Your task to perform on an android device: turn on the 24-hour format for clock Image 0: 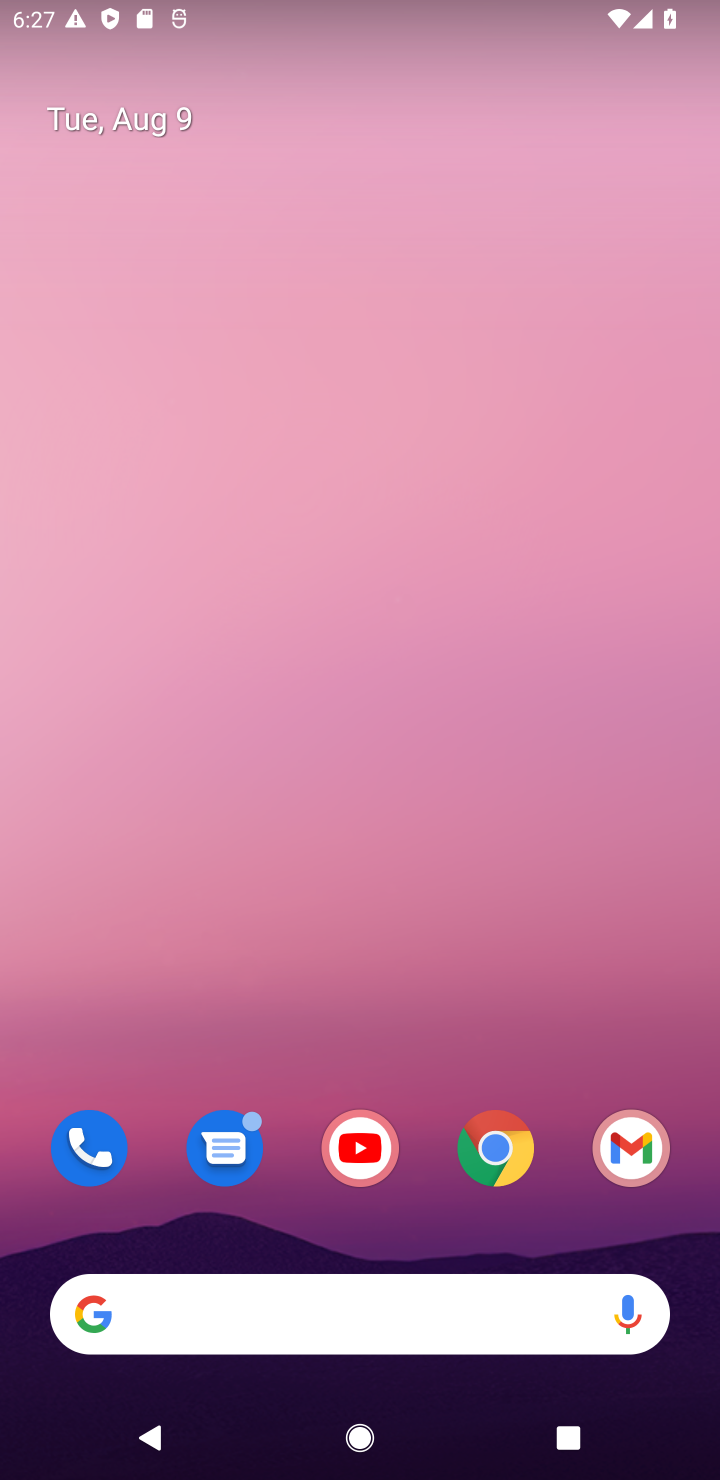
Step 0: press home button
Your task to perform on an android device: turn on the 24-hour format for clock Image 1: 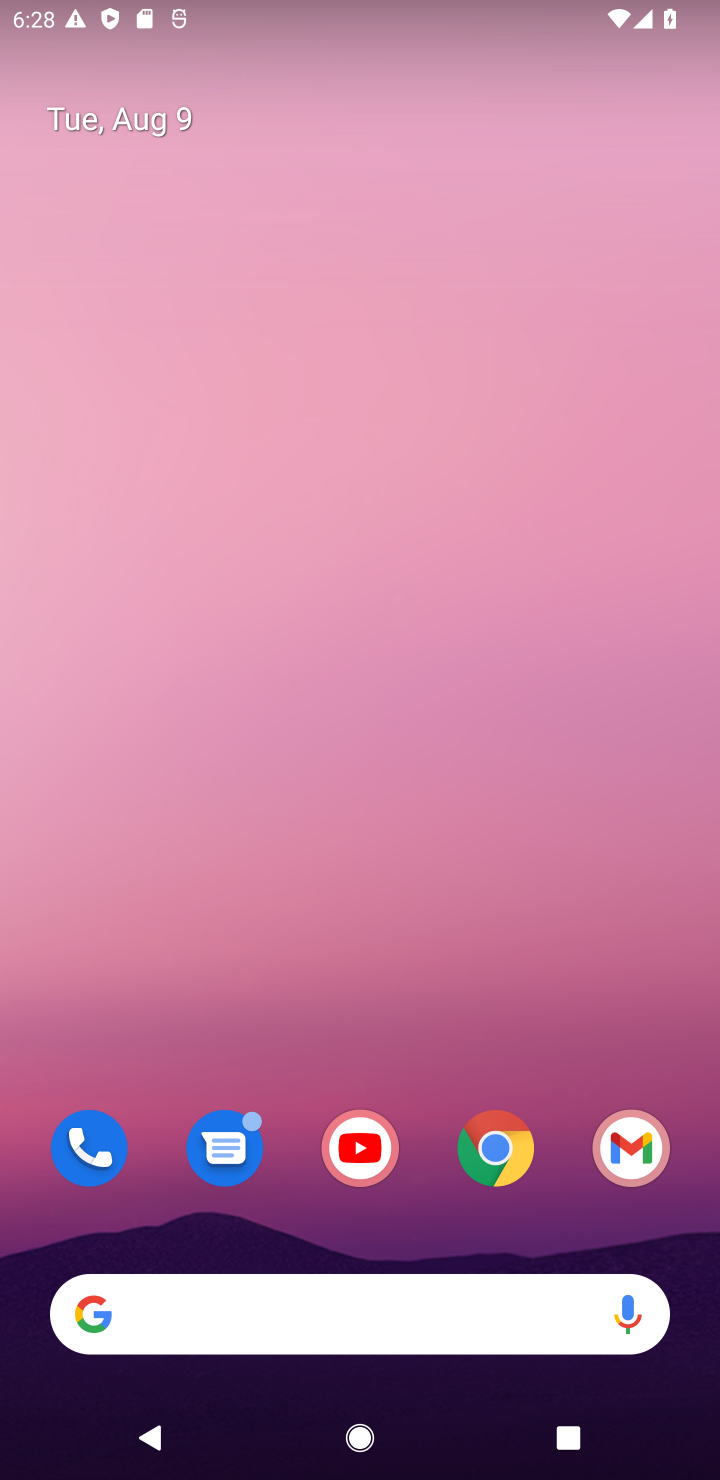
Step 1: drag from (379, 923) to (382, 161)
Your task to perform on an android device: turn on the 24-hour format for clock Image 2: 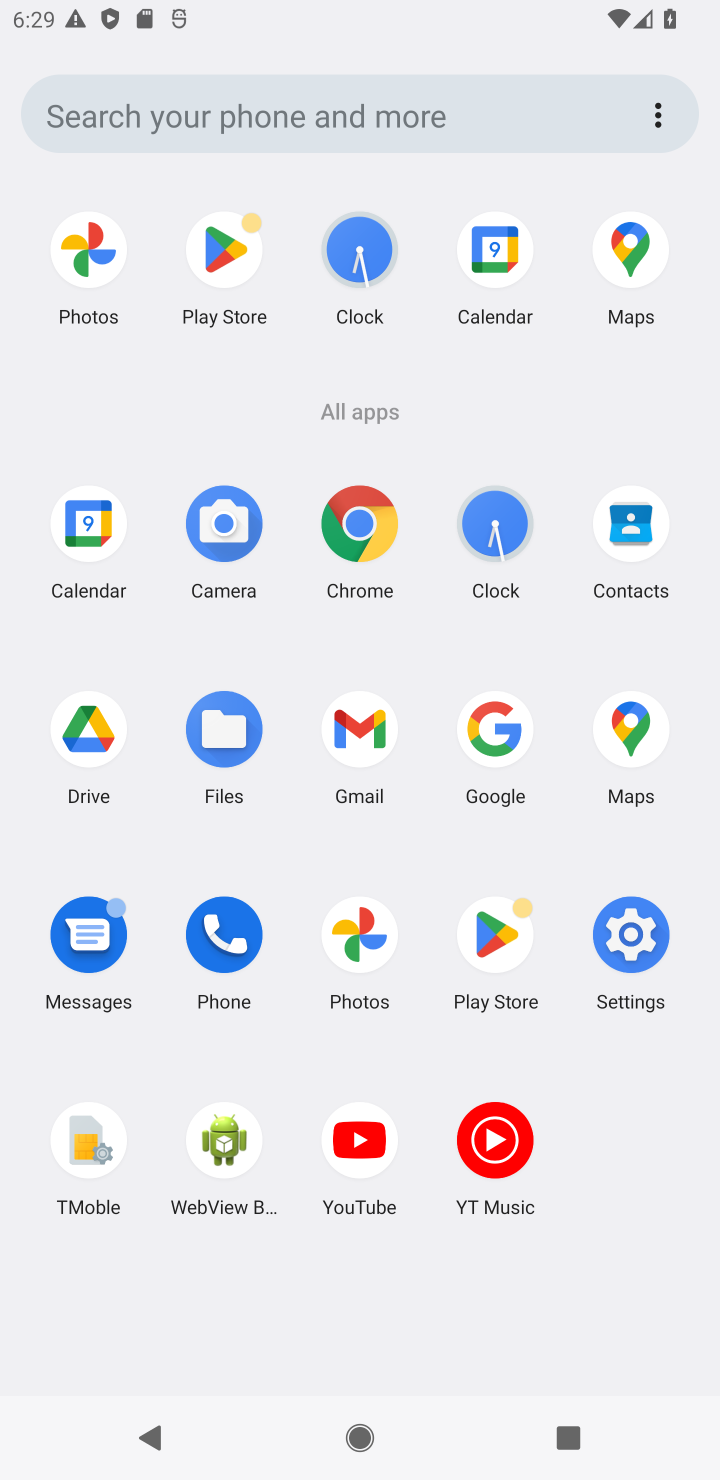
Step 2: click (511, 503)
Your task to perform on an android device: turn on the 24-hour format for clock Image 3: 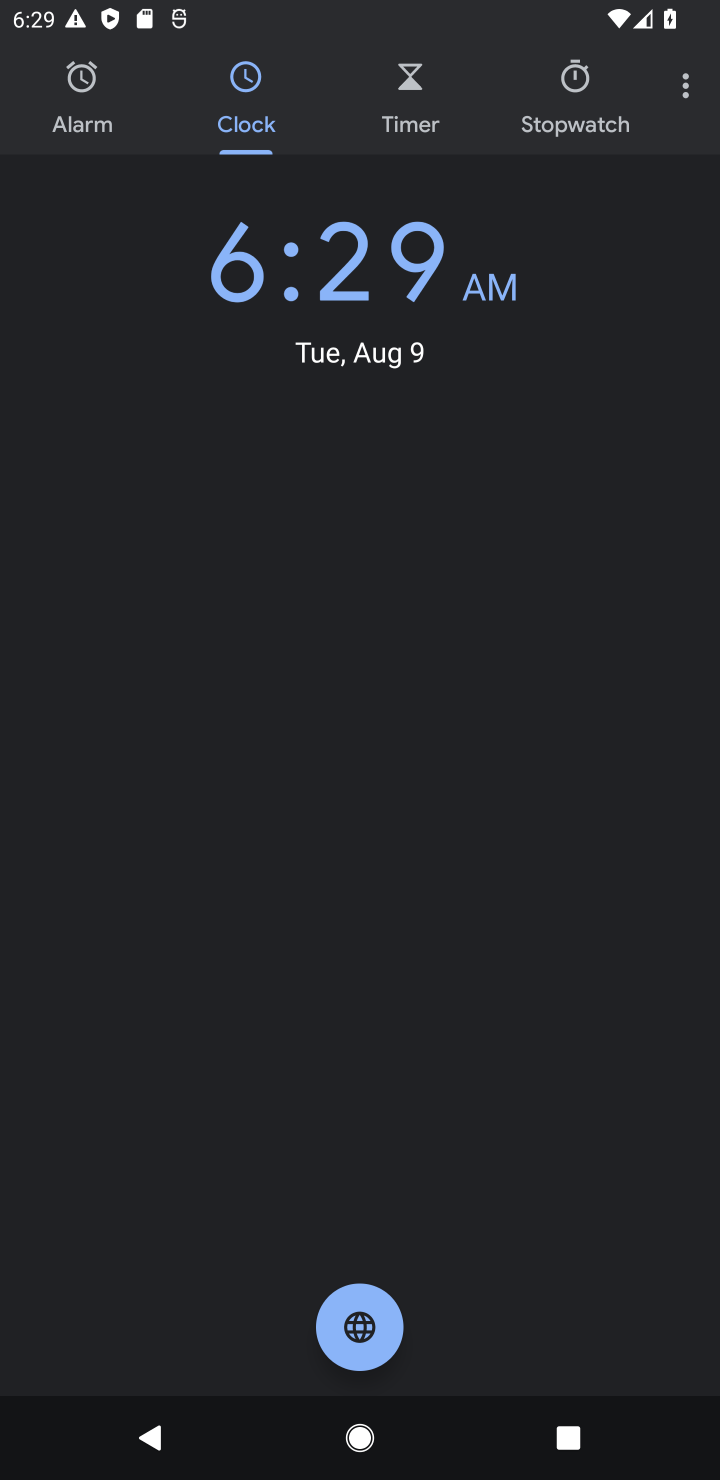
Step 3: click (682, 96)
Your task to perform on an android device: turn on the 24-hour format for clock Image 4: 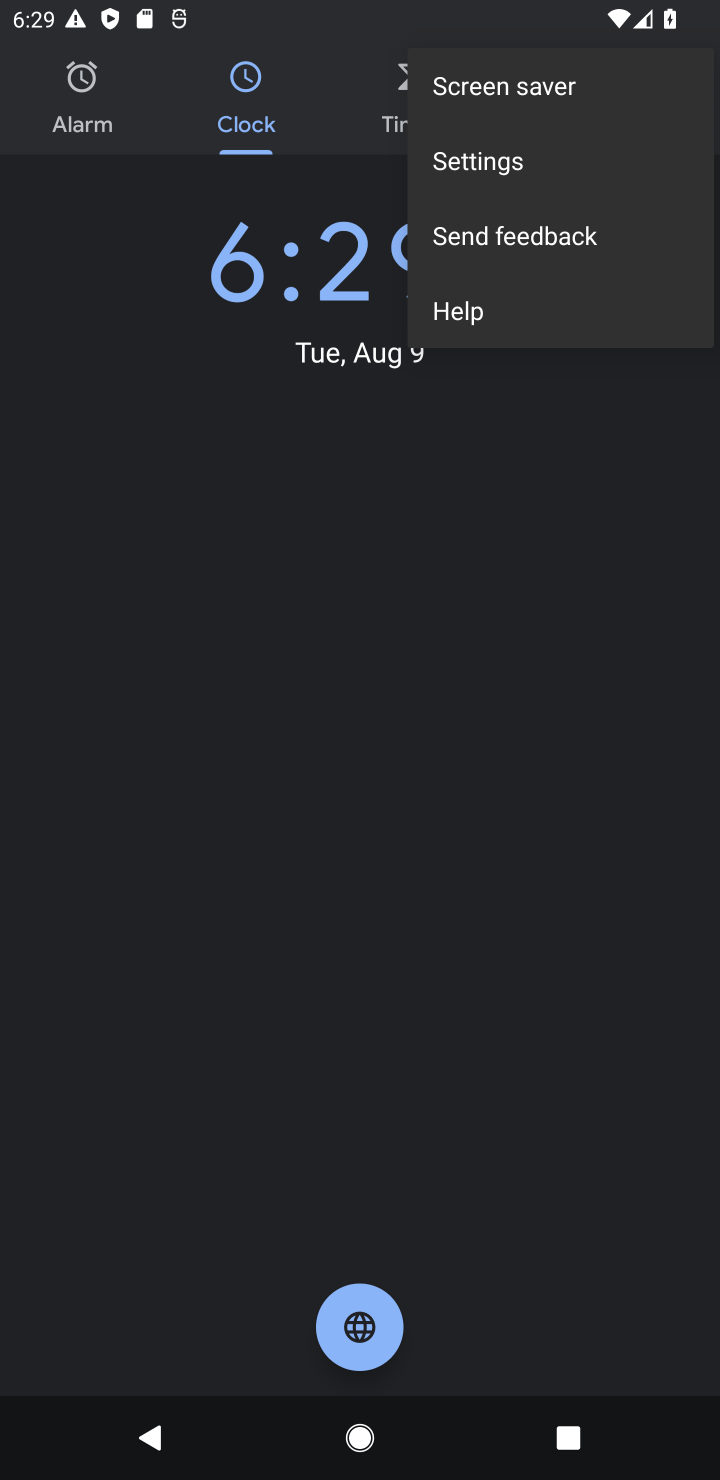
Step 4: click (531, 162)
Your task to perform on an android device: turn on the 24-hour format for clock Image 5: 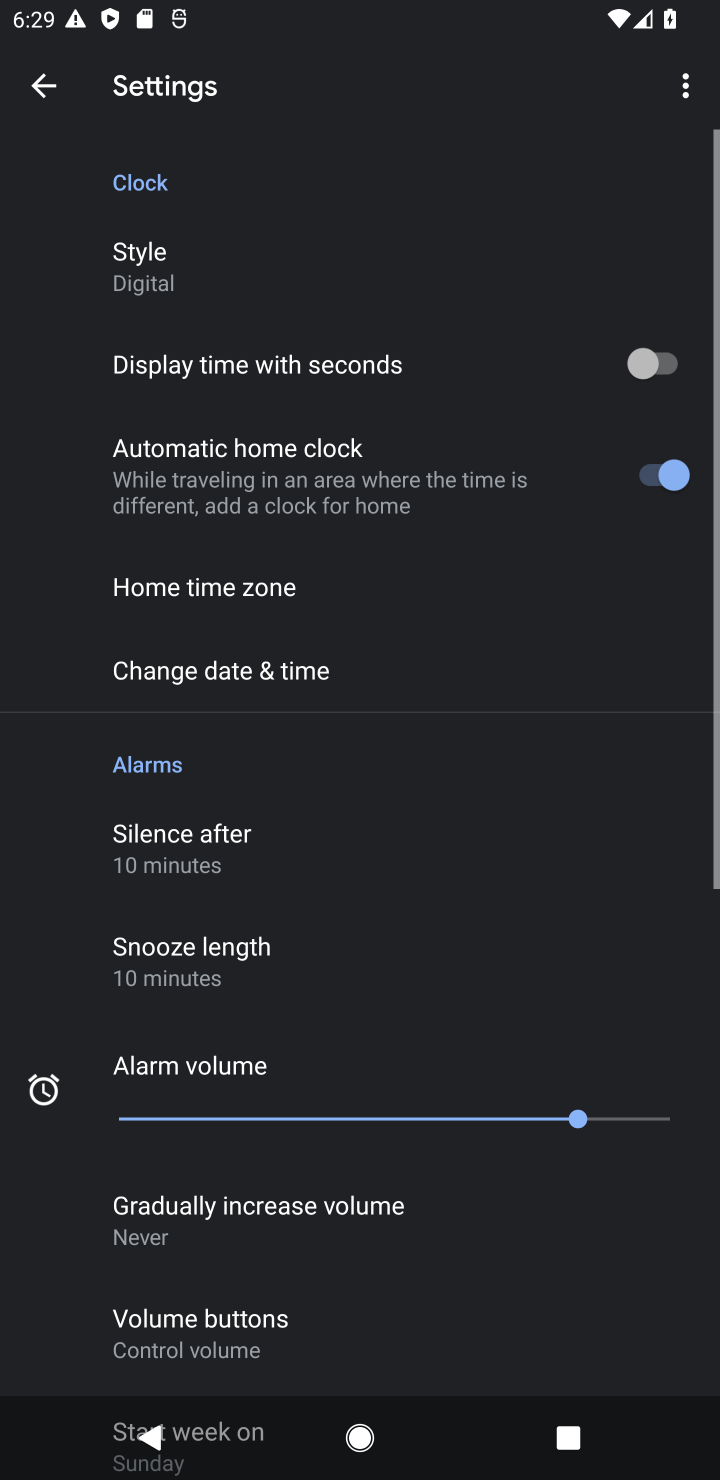
Step 5: click (260, 693)
Your task to perform on an android device: turn on the 24-hour format for clock Image 6: 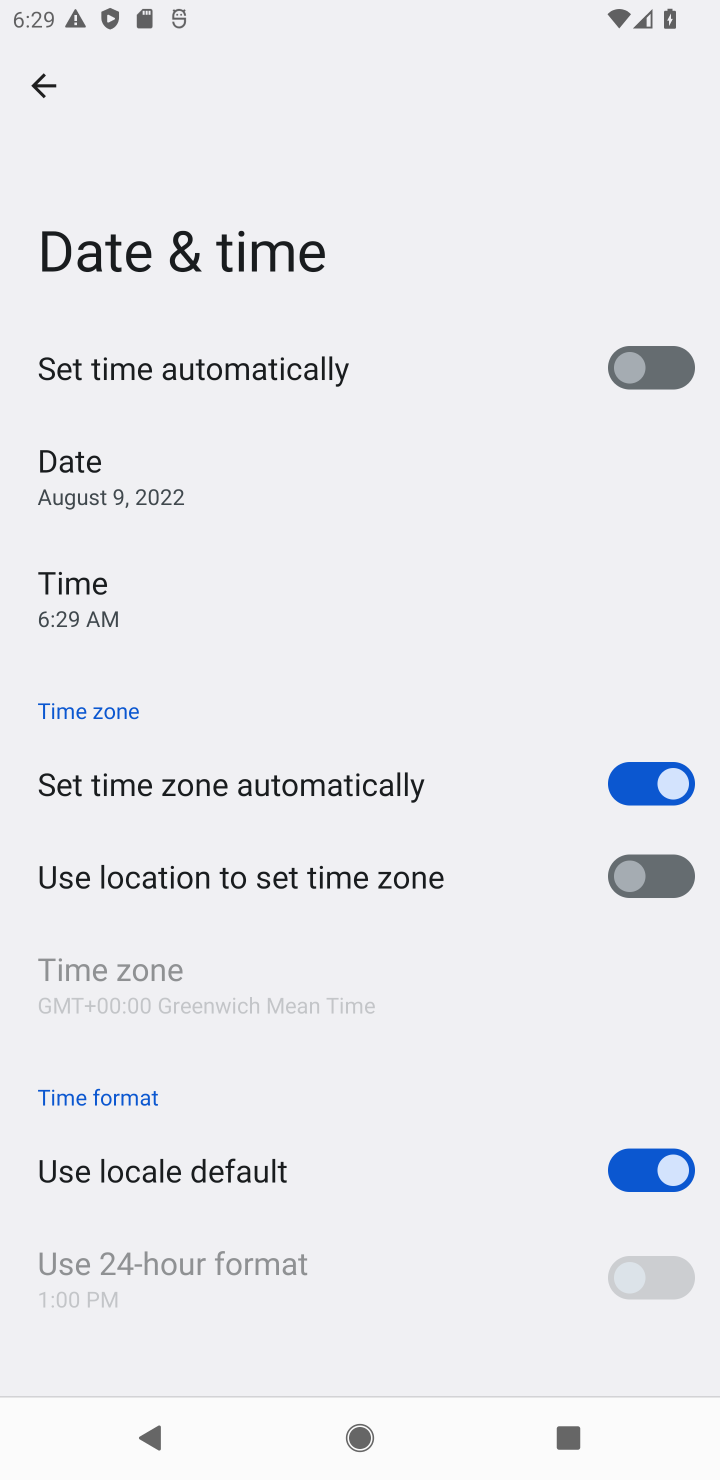
Step 6: drag from (311, 1122) to (341, 389)
Your task to perform on an android device: turn on the 24-hour format for clock Image 7: 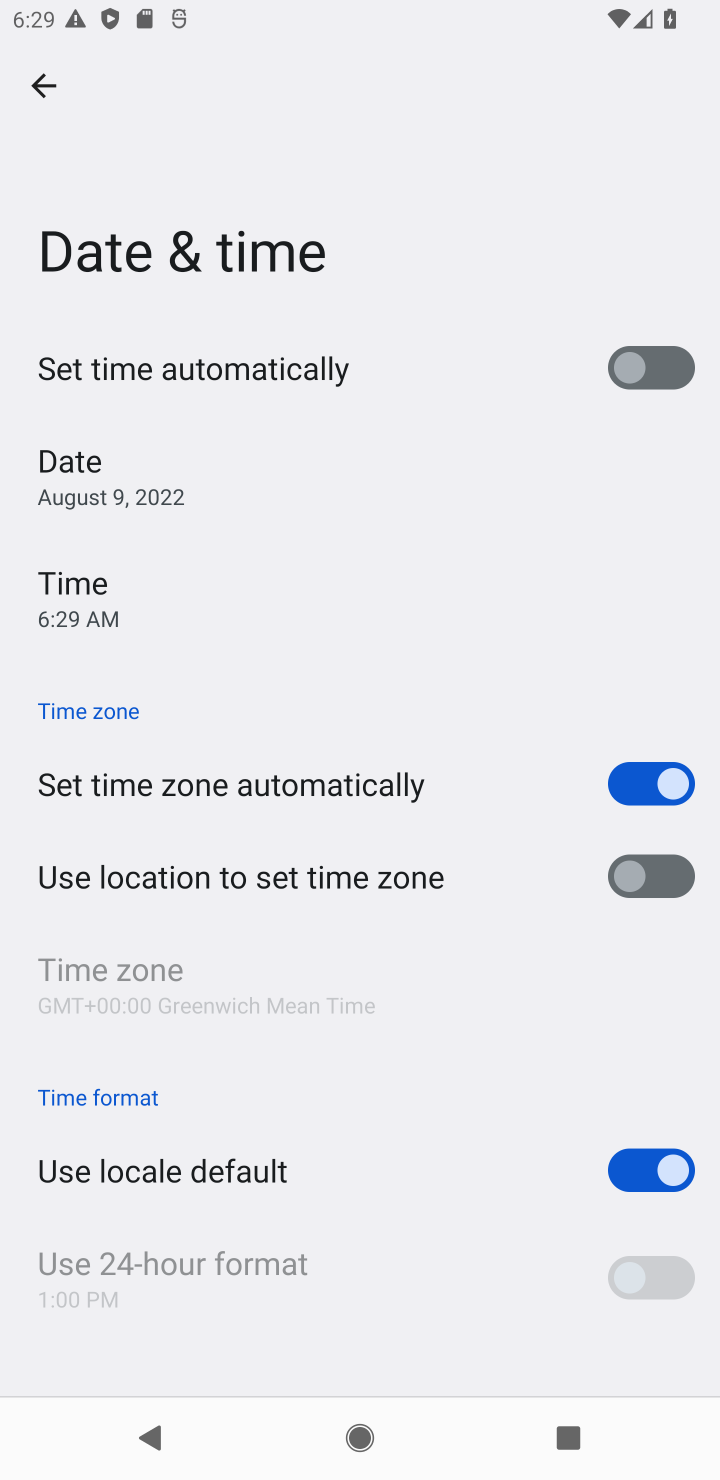
Step 7: click (598, 1161)
Your task to perform on an android device: turn on the 24-hour format for clock Image 8: 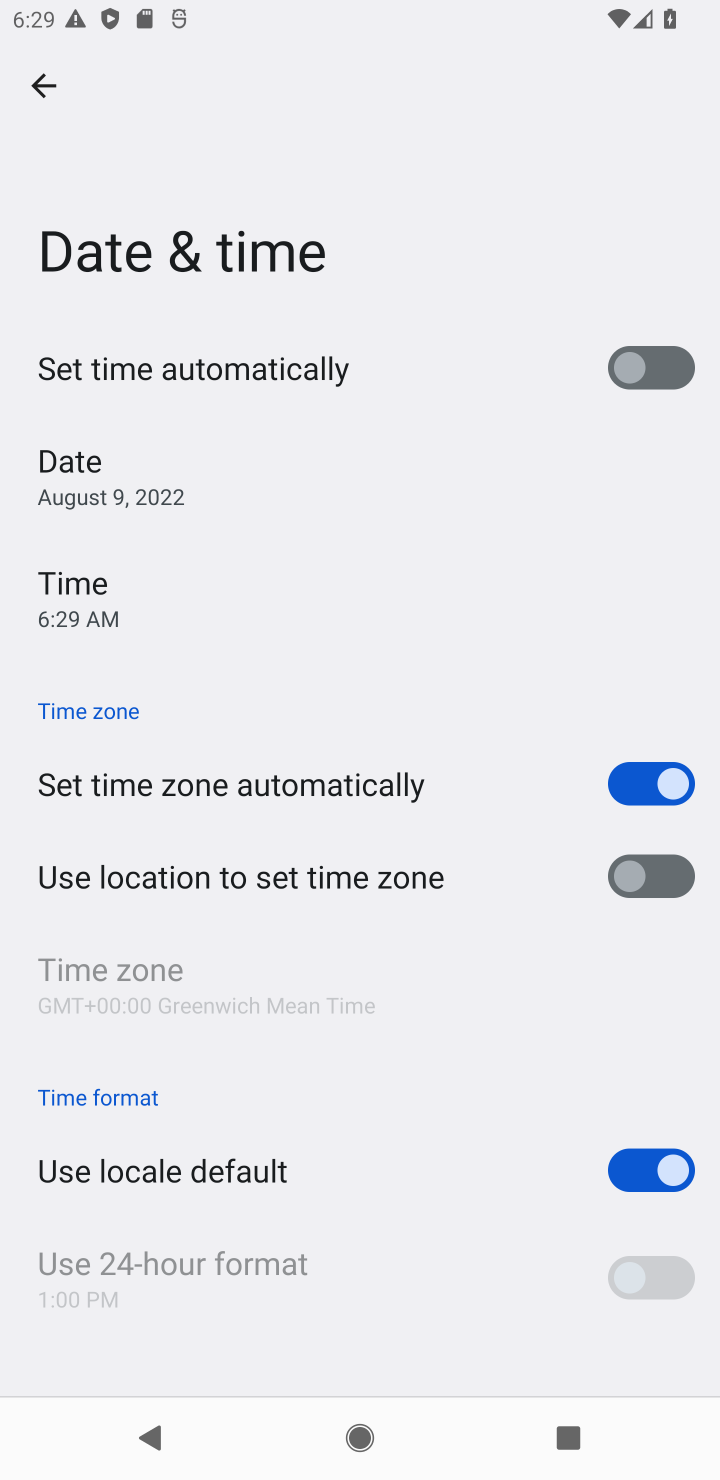
Step 8: click (586, 1298)
Your task to perform on an android device: turn on the 24-hour format for clock Image 9: 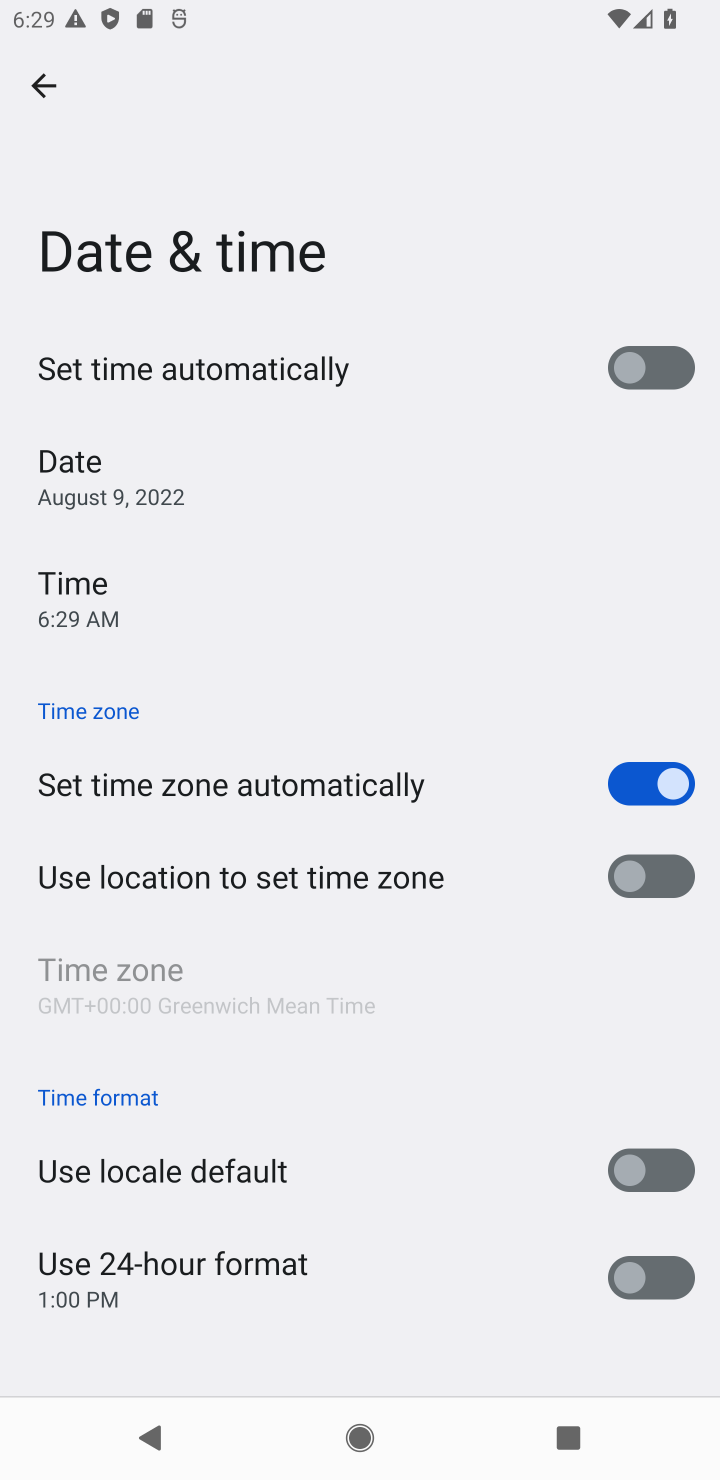
Step 9: task complete